Your task to perform on an android device: clear all cookies in the chrome app Image 0: 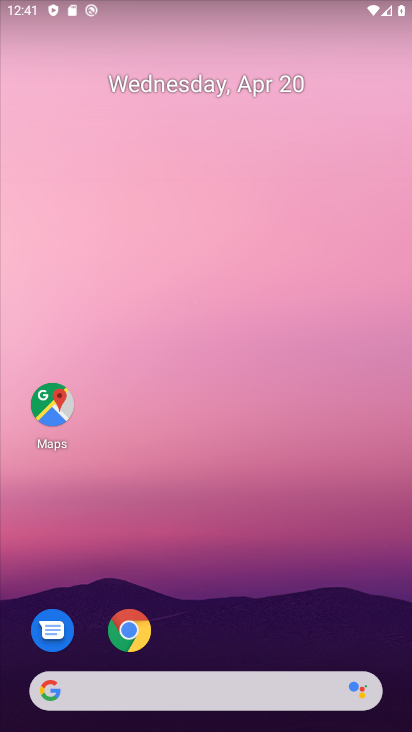
Step 0: press home button
Your task to perform on an android device: clear all cookies in the chrome app Image 1: 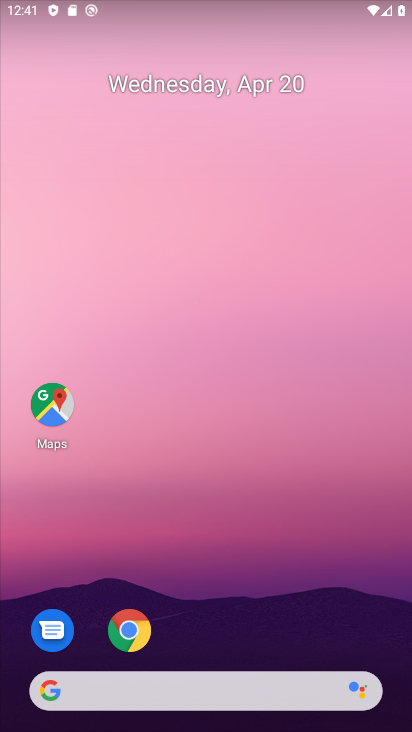
Step 1: drag from (217, 637) to (223, 160)
Your task to perform on an android device: clear all cookies in the chrome app Image 2: 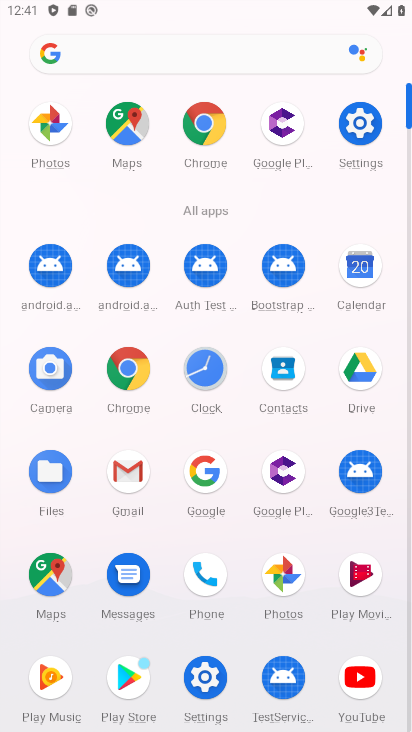
Step 2: click (108, 370)
Your task to perform on an android device: clear all cookies in the chrome app Image 3: 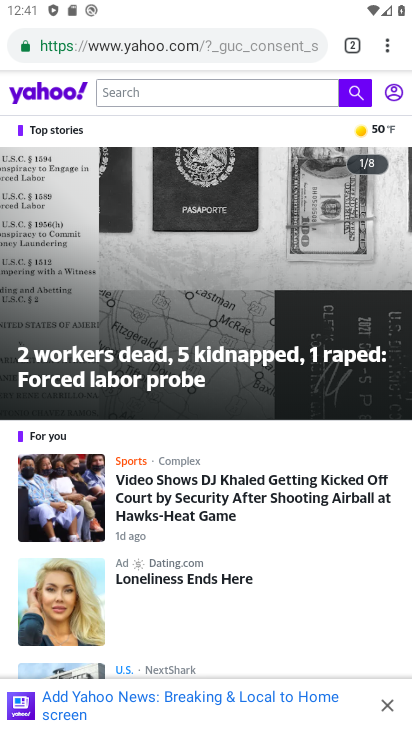
Step 3: click (381, 43)
Your task to perform on an android device: clear all cookies in the chrome app Image 4: 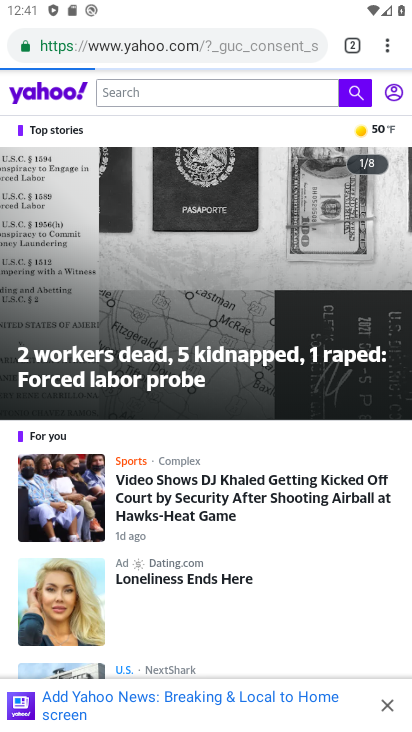
Step 4: drag from (381, 43) to (217, 253)
Your task to perform on an android device: clear all cookies in the chrome app Image 5: 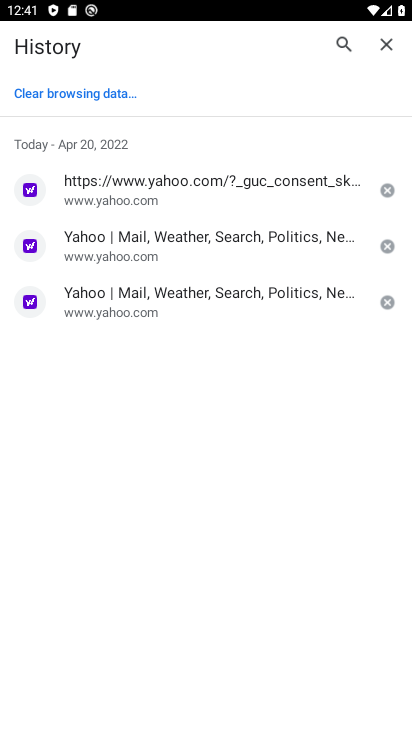
Step 5: click (12, 68)
Your task to perform on an android device: clear all cookies in the chrome app Image 6: 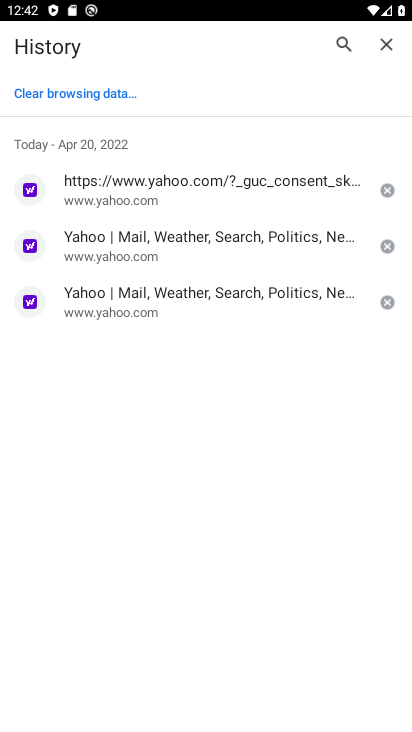
Step 6: click (22, 91)
Your task to perform on an android device: clear all cookies in the chrome app Image 7: 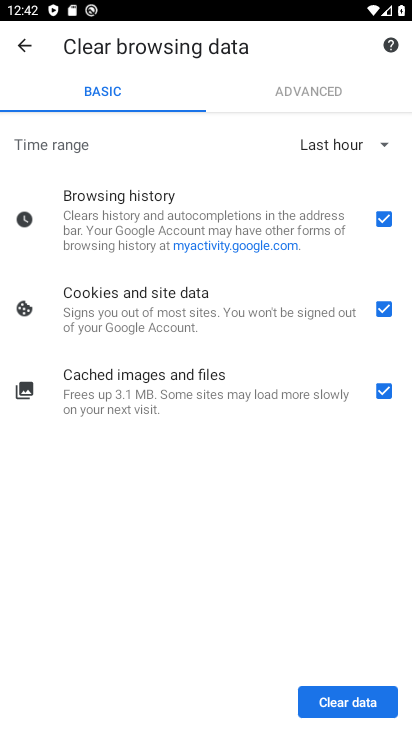
Step 7: click (382, 390)
Your task to perform on an android device: clear all cookies in the chrome app Image 8: 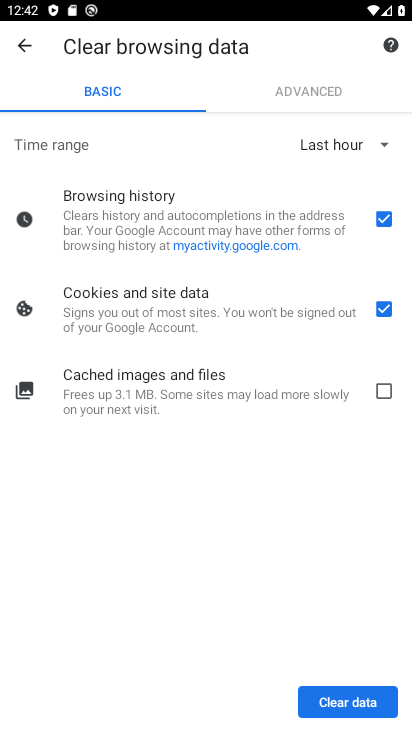
Step 8: click (391, 221)
Your task to perform on an android device: clear all cookies in the chrome app Image 9: 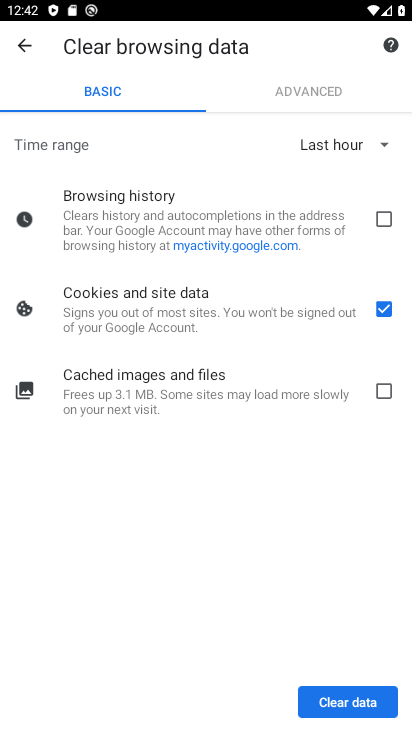
Step 9: click (356, 694)
Your task to perform on an android device: clear all cookies in the chrome app Image 10: 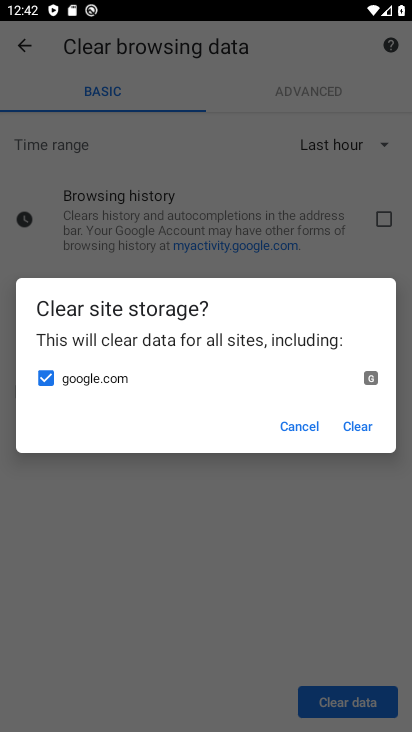
Step 10: click (351, 429)
Your task to perform on an android device: clear all cookies in the chrome app Image 11: 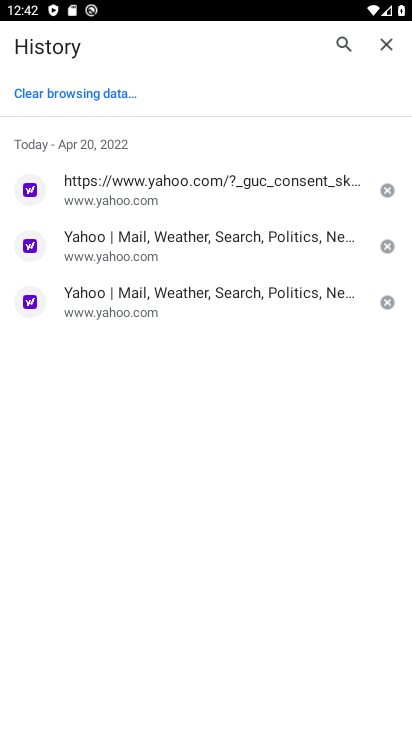
Step 11: task complete